Your task to perform on an android device: Open Google Chrome and open the bookmarks view Image 0: 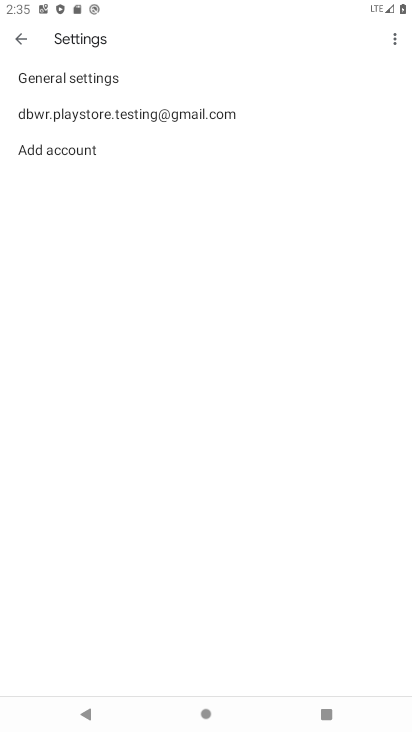
Step 0: press home button
Your task to perform on an android device: Open Google Chrome and open the bookmarks view Image 1: 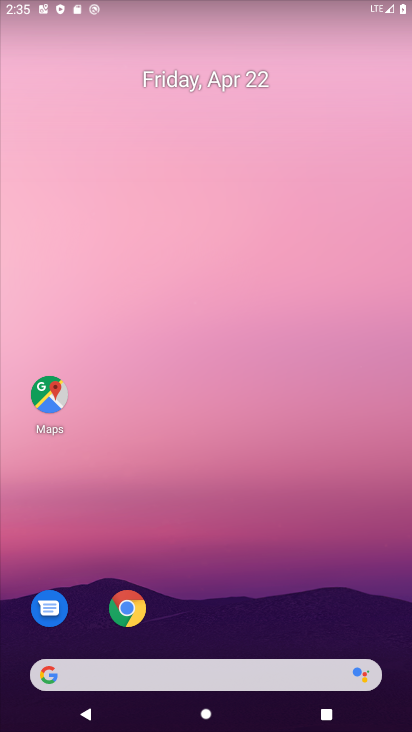
Step 1: drag from (218, 645) to (216, 289)
Your task to perform on an android device: Open Google Chrome and open the bookmarks view Image 2: 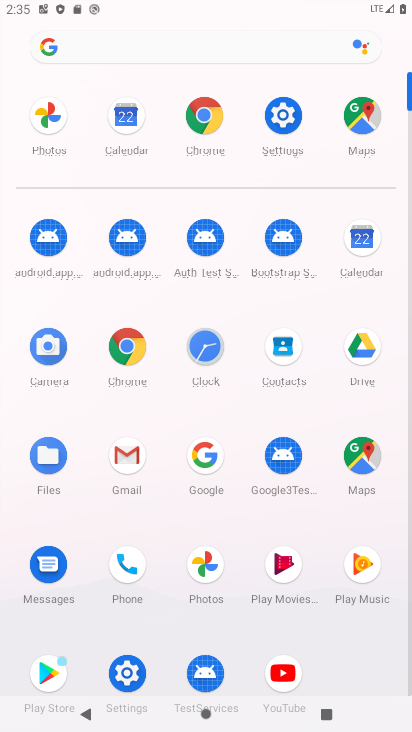
Step 2: click (119, 360)
Your task to perform on an android device: Open Google Chrome and open the bookmarks view Image 3: 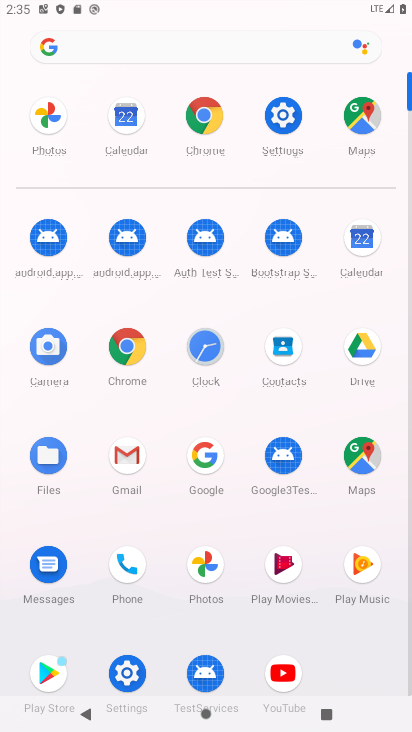
Step 3: click (125, 347)
Your task to perform on an android device: Open Google Chrome and open the bookmarks view Image 4: 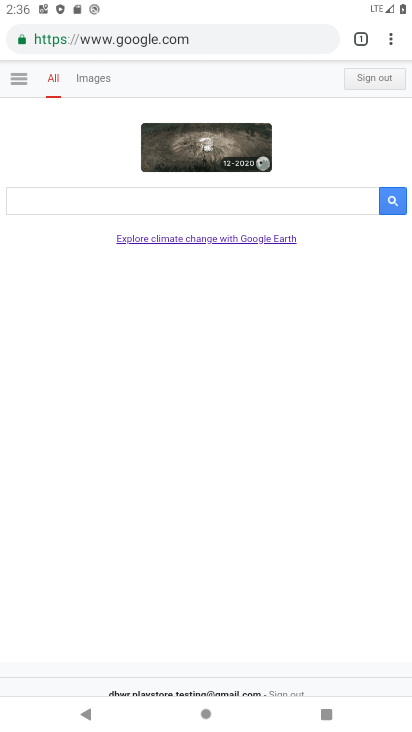
Step 4: click (385, 41)
Your task to perform on an android device: Open Google Chrome and open the bookmarks view Image 5: 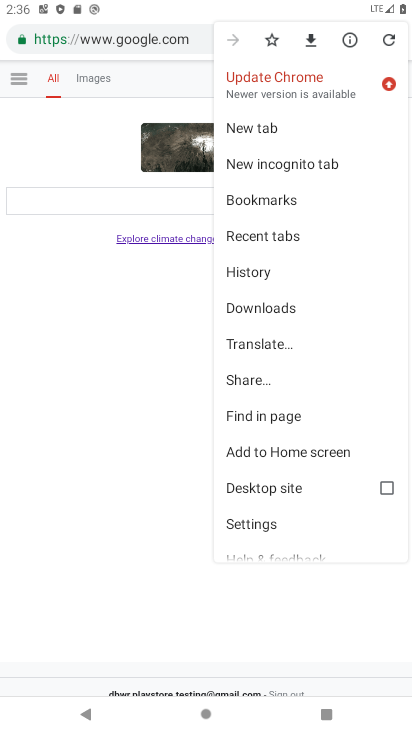
Step 5: click (283, 209)
Your task to perform on an android device: Open Google Chrome and open the bookmarks view Image 6: 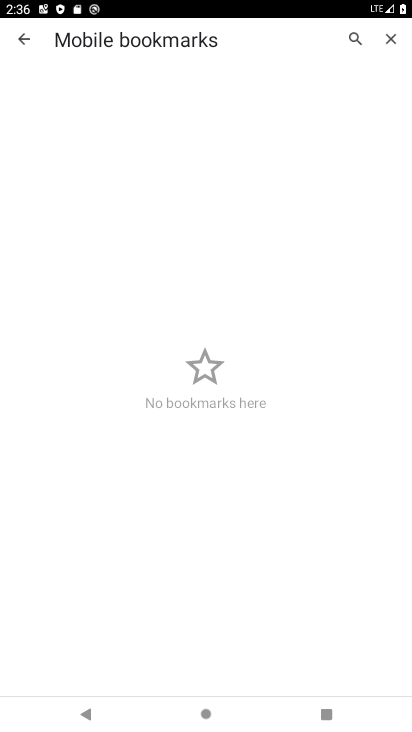
Step 6: task complete